Your task to perform on an android device: Open the stopwatch Image 0: 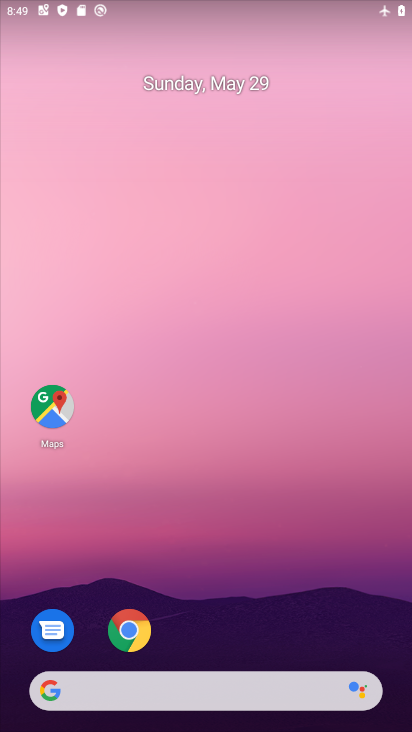
Step 0: drag from (204, 653) to (106, 177)
Your task to perform on an android device: Open the stopwatch Image 1: 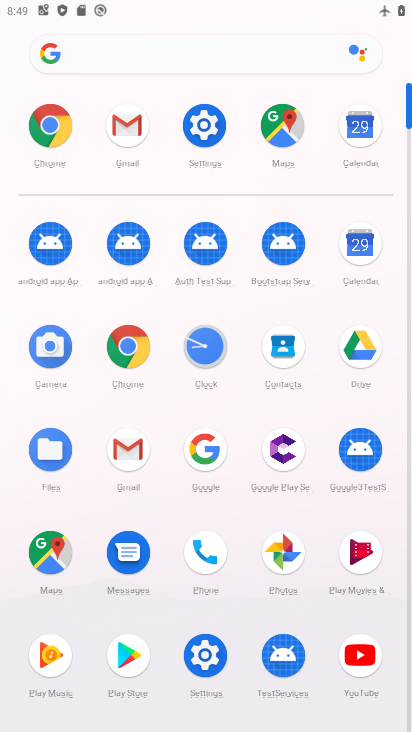
Step 1: click (195, 339)
Your task to perform on an android device: Open the stopwatch Image 2: 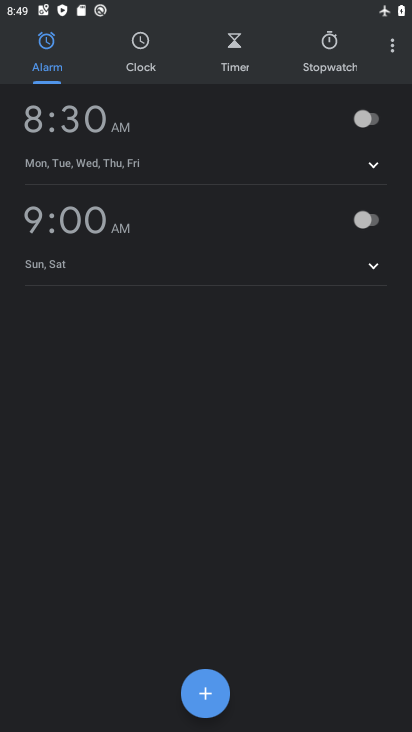
Step 2: click (329, 46)
Your task to perform on an android device: Open the stopwatch Image 3: 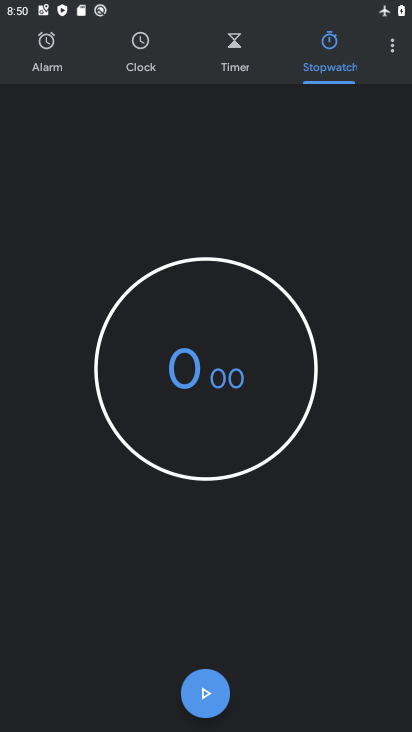
Step 3: task complete